Your task to perform on an android device: turn off javascript in the chrome app Image 0: 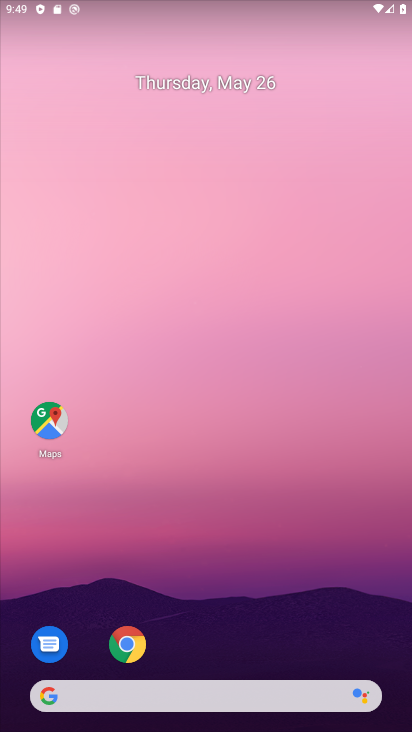
Step 0: drag from (361, 644) to (359, 237)
Your task to perform on an android device: turn off javascript in the chrome app Image 1: 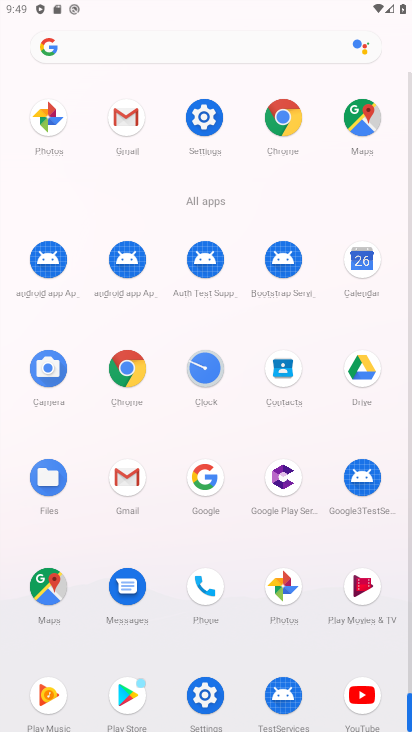
Step 1: click (136, 392)
Your task to perform on an android device: turn off javascript in the chrome app Image 2: 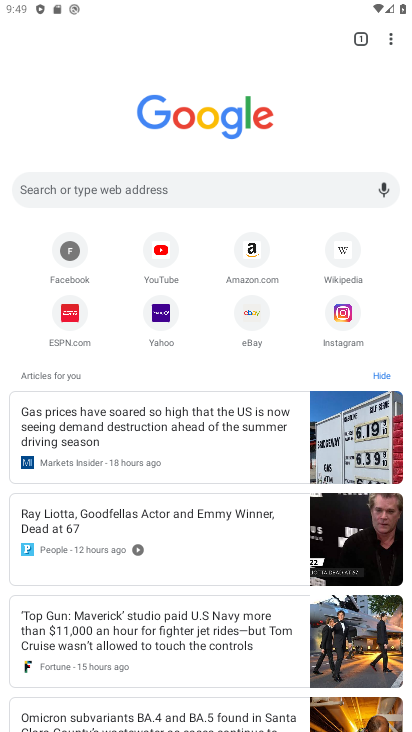
Step 2: click (396, 41)
Your task to perform on an android device: turn off javascript in the chrome app Image 3: 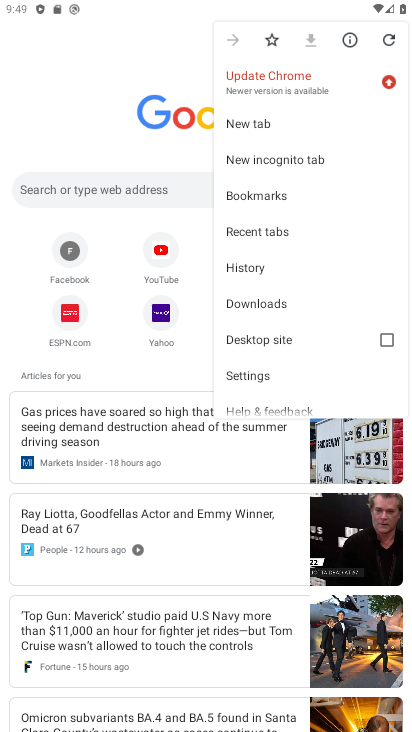
Step 3: click (273, 382)
Your task to perform on an android device: turn off javascript in the chrome app Image 4: 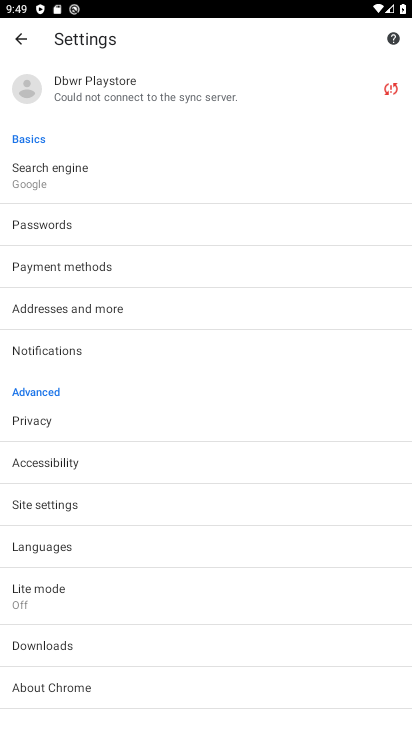
Step 4: drag from (262, 493) to (251, 368)
Your task to perform on an android device: turn off javascript in the chrome app Image 5: 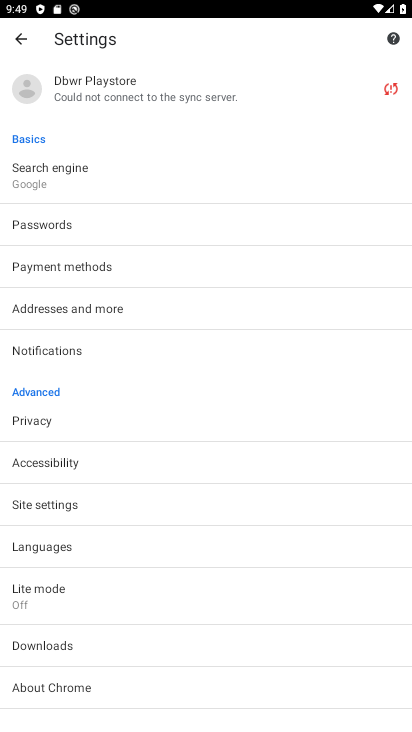
Step 5: click (241, 495)
Your task to perform on an android device: turn off javascript in the chrome app Image 6: 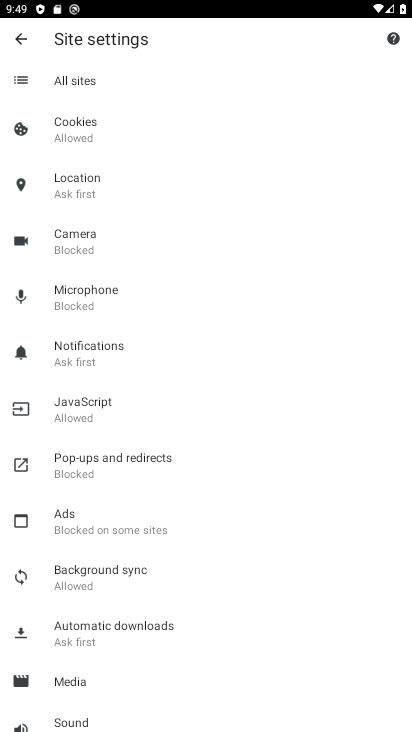
Step 6: click (159, 417)
Your task to perform on an android device: turn off javascript in the chrome app Image 7: 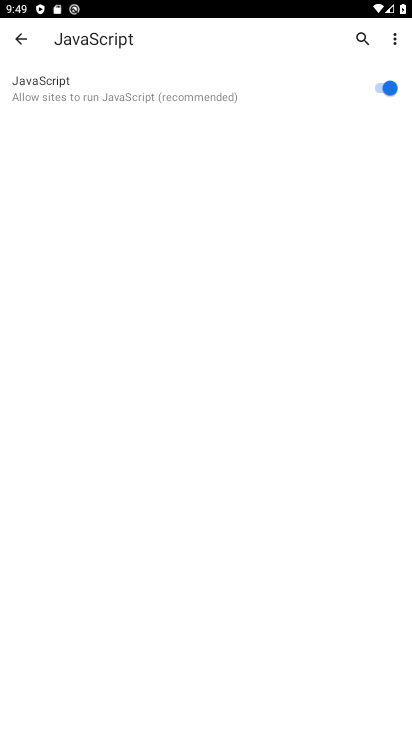
Step 7: click (378, 92)
Your task to perform on an android device: turn off javascript in the chrome app Image 8: 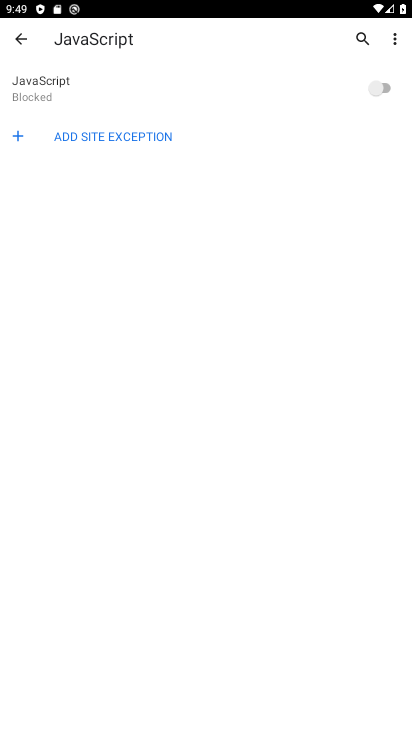
Step 8: task complete